Your task to perform on an android device: Go to network settings Image 0: 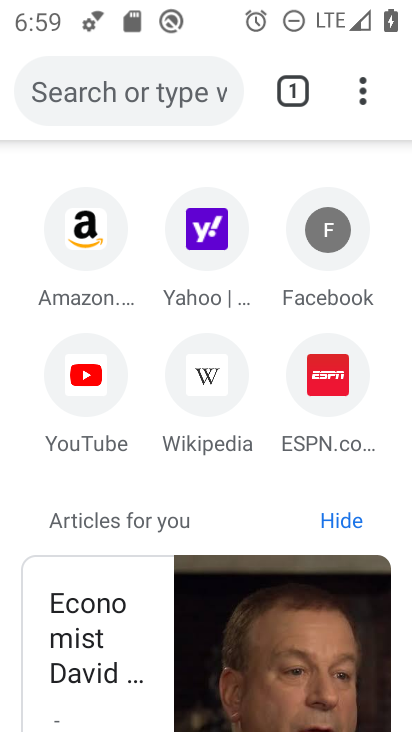
Step 0: press home button
Your task to perform on an android device: Go to network settings Image 1: 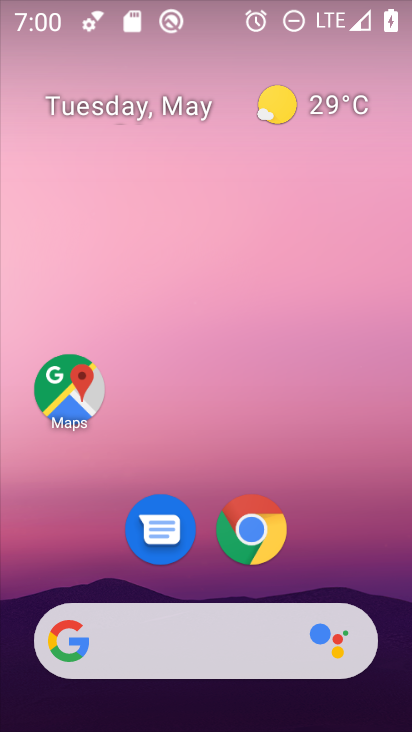
Step 1: drag from (396, 651) to (279, 1)
Your task to perform on an android device: Go to network settings Image 2: 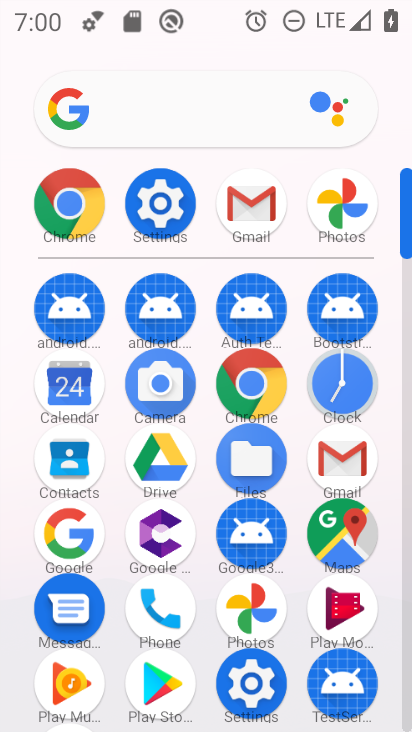
Step 2: click (181, 228)
Your task to perform on an android device: Go to network settings Image 3: 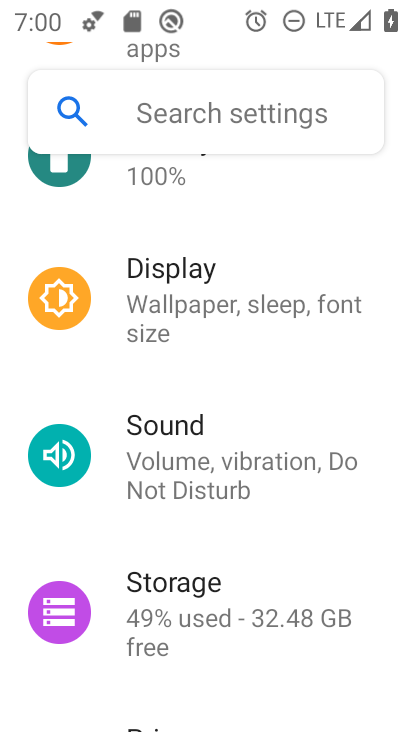
Step 3: drag from (208, 223) to (234, 684)
Your task to perform on an android device: Go to network settings Image 4: 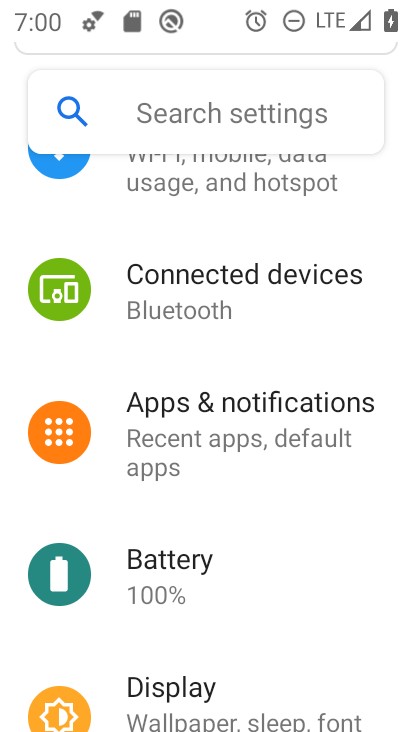
Step 4: drag from (216, 252) to (228, 576)
Your task to perform on an android device: Go to network settings Image 5: 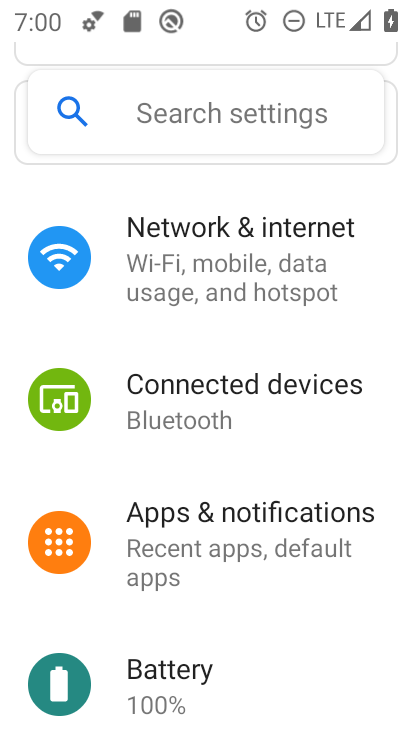
Step 5: click (214, 267)
Your task to perform on an android device: Go to network settings Image 6: 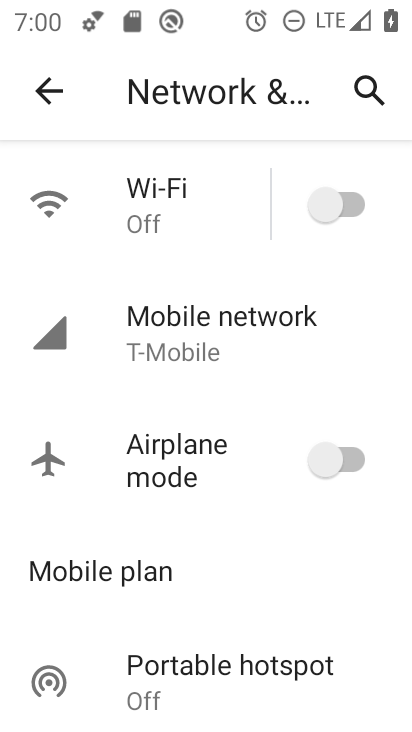
Step 6: task complete